Your task to perform on an android device: Show me the alarms in the clock app Image 0: 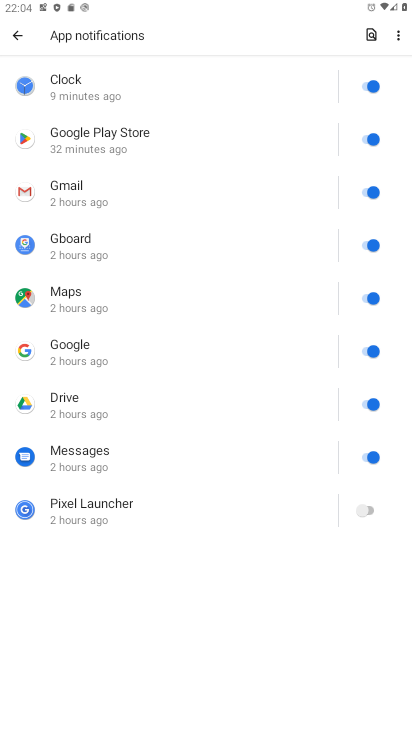
Step 0: drag from (237, 510) to (213, 168)
Your task to perform on an android device: Show me the alarms in the clock app Image 1: 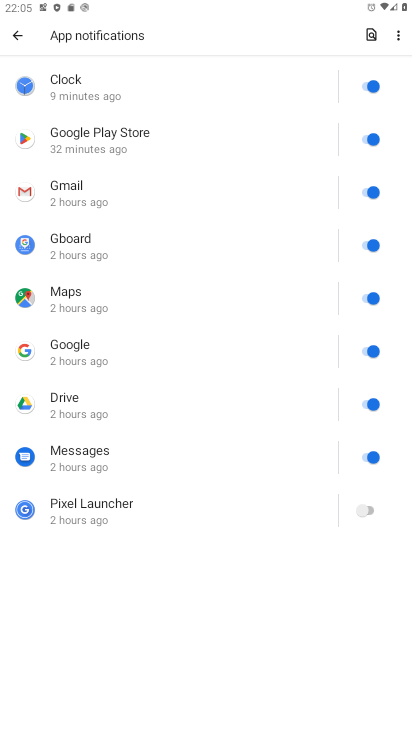
Step 1: press home button
Your task to perform on an android device: Show me the alarms in the clock app Image 2: 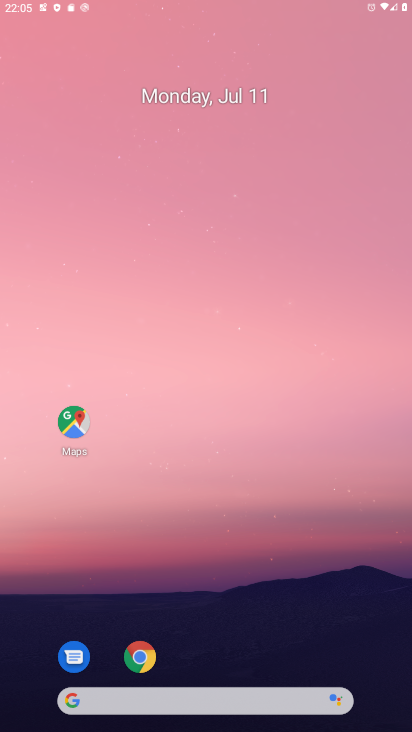
Step 2: drag from (200, 624) to (209, 49)
Your task to perform on an android device: Show me the alarms in the clock app Image 3: 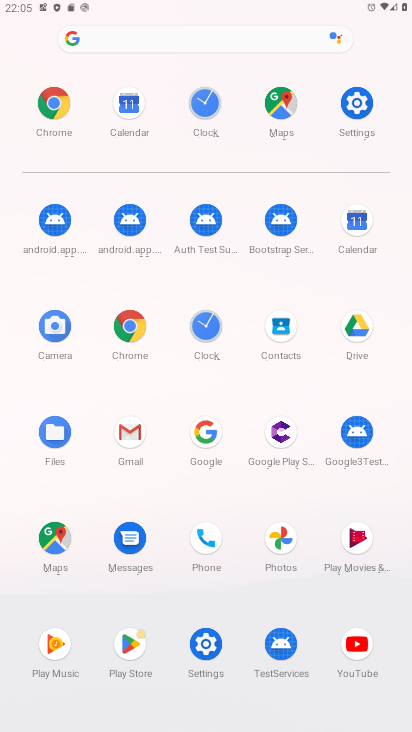
Step 3: click (203, 320)
Your task to perform on an android device: Show me the alarms in the clock app Image 4: 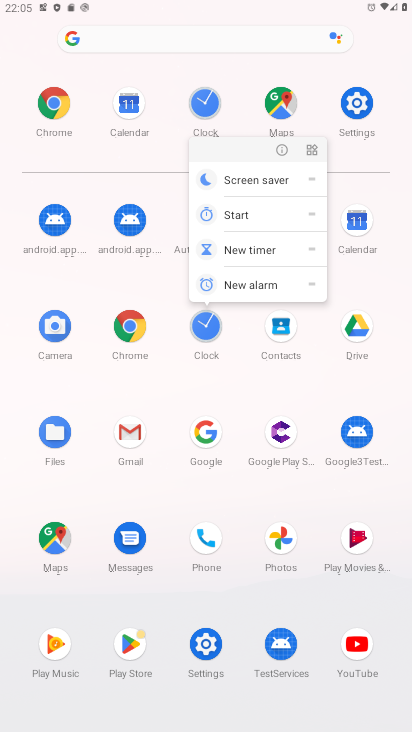
Step 4: click (282, 151)
Your task to perform on an android device: Show me the alarms in the clock app Image 5: 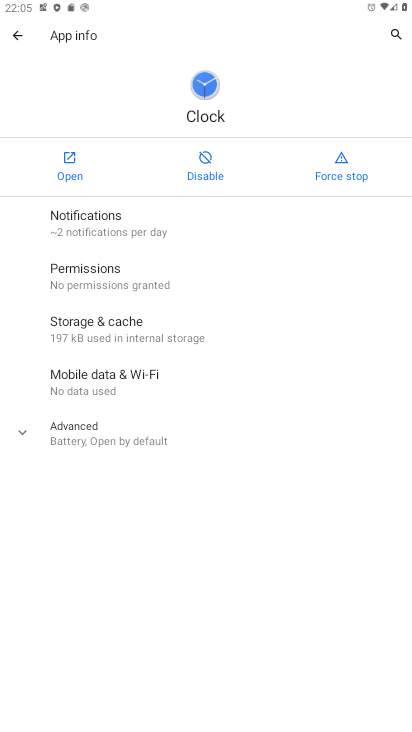
Step 5: click (61, 161)
Your task to perform on an android device: Show me the alarms in the clock app Image 6: 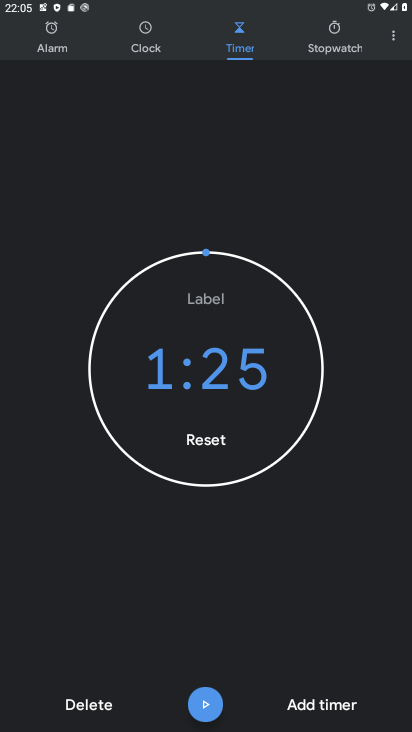
Step 6: click (390, 40)
Your task to perform on an android device: Show me the alarms in the clock app Image 7: 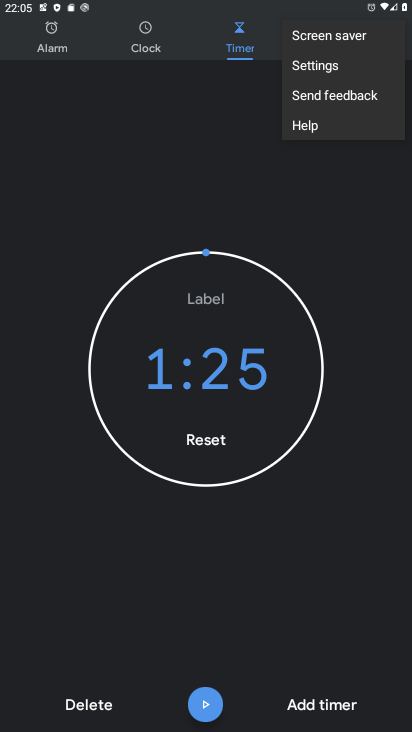
Step 7: click (325, 67)
Your task to perform on an android device: Show me the alarms in the clock app Image 8: 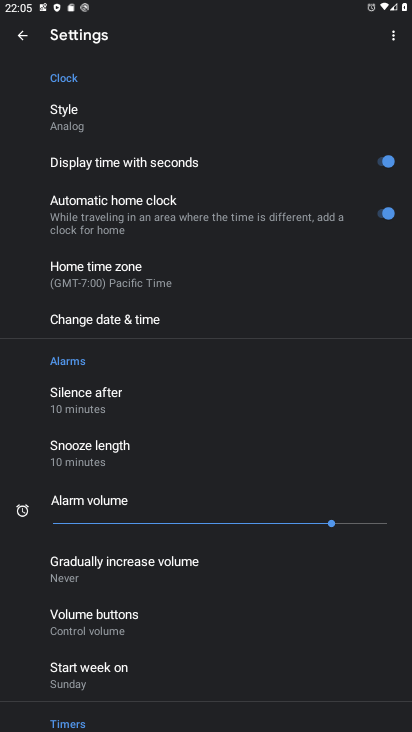
Step 8: drag from (250, 330) to (278, 140)
Your task to perform on an android device: Show me the alarms in the clock app Image 9: 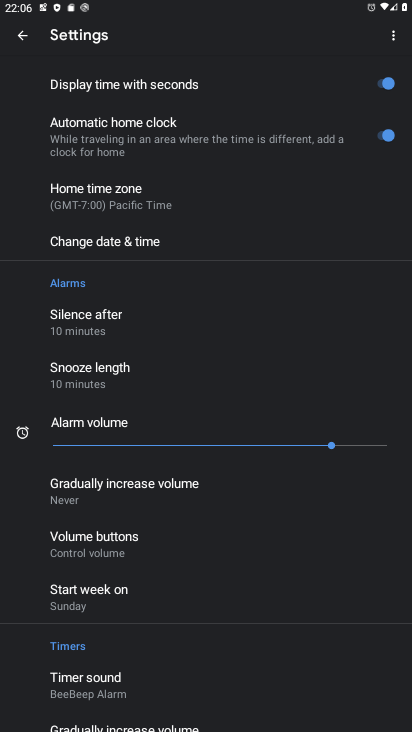
Step 9: press back button
Your task to perform on an android device: Show me the alarms in the clock app Image 10: 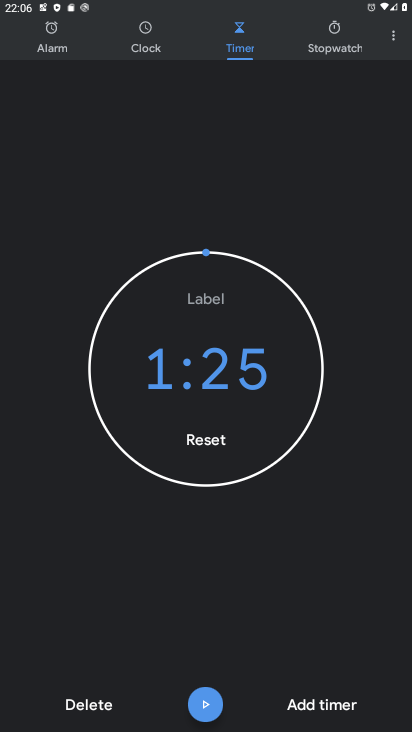
Step 10: drag from (189, 629) to (203, 119)
Your task to perform on an android device: Show me the alarms in the clock app Image 11: 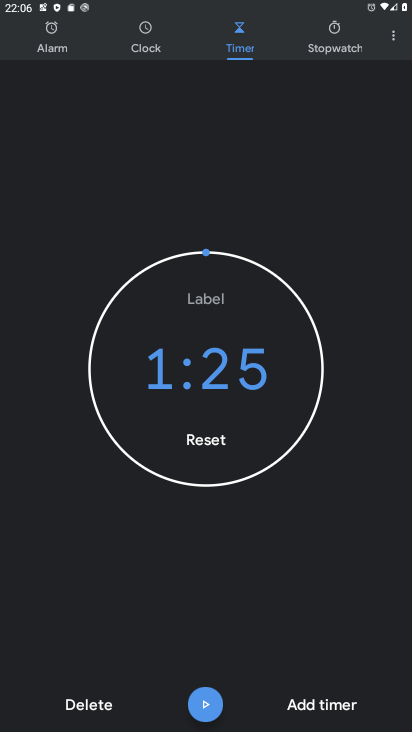
Step 11: click (398, 35)
Your task to perform on an android device: Show me the alarms in the clock app Image 12: 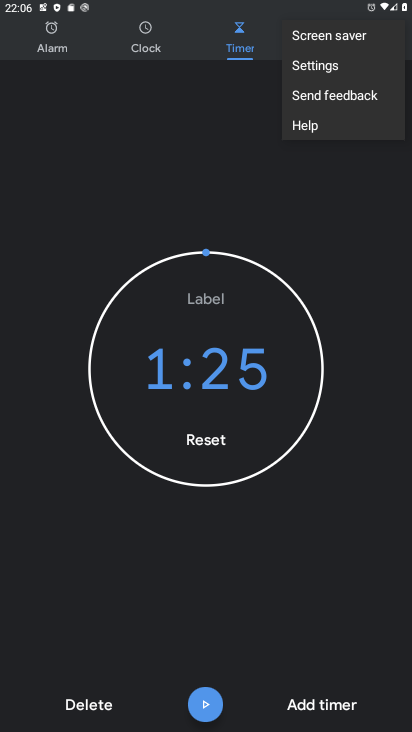
Step 12: click (338, 69)
Your task to perform on an android device: Show me the alarms in the clock app Image 13: 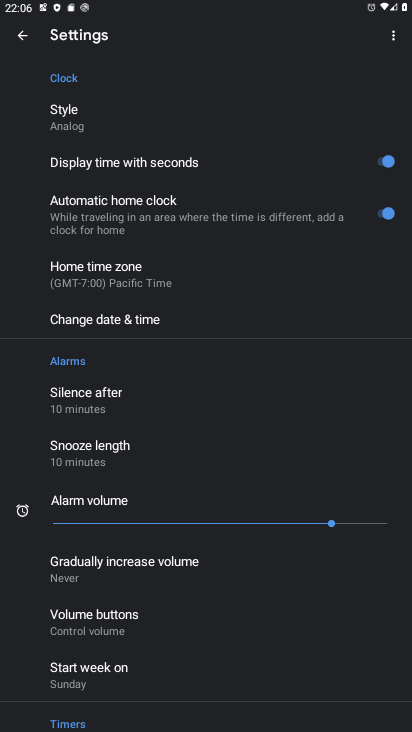
Step 13: click (21, 34)
Your task to perform on an android device: Show me the alarms in the clock app Image 14: 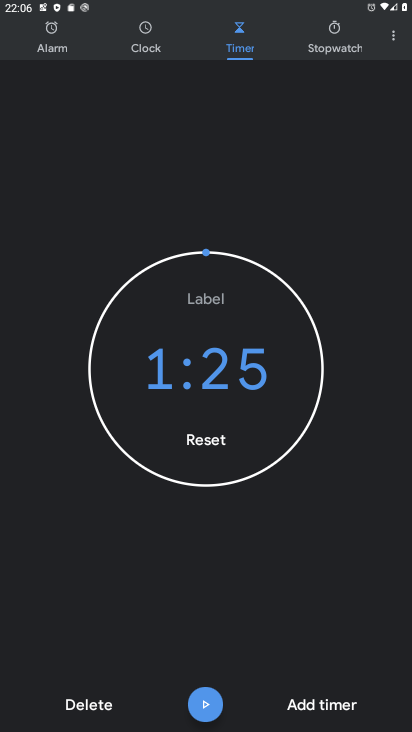
Step 14: click (33, 41)
Your task to perform on an android device: Show me the alarms in the clock app Image 15: 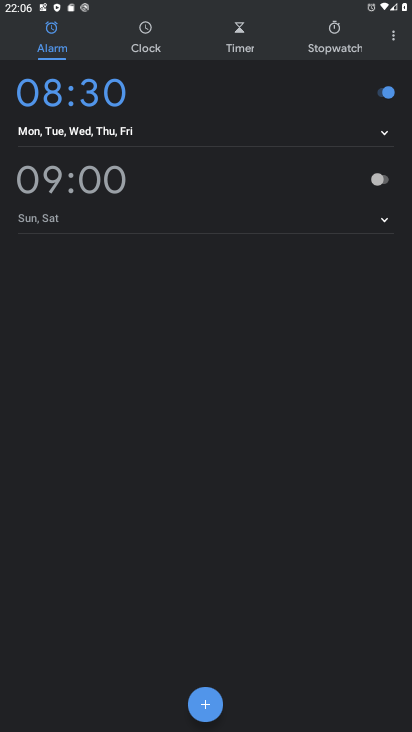
Step 15: task complete